Your task to perform on an android device: Open location settings Image 0: 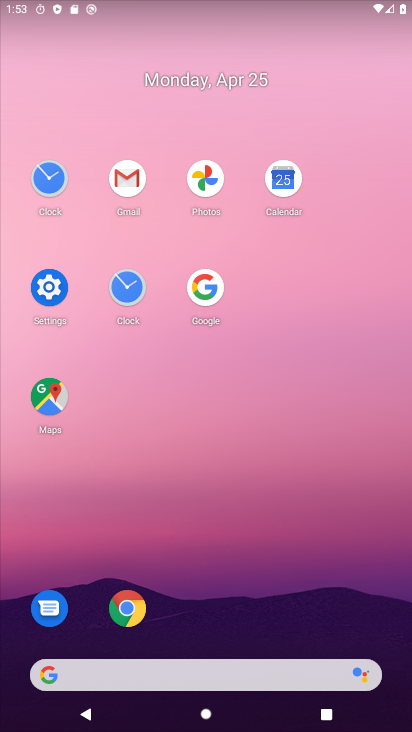
Step 0: click (50, 289)
Your task to perform on an android device: Open location settings Image 1: 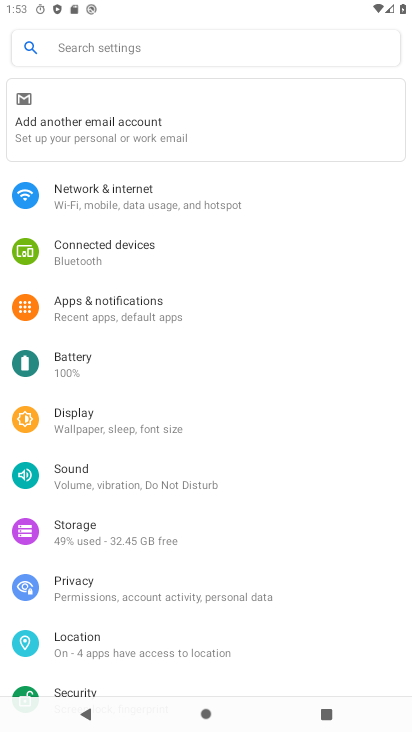
Step 1: click (125, 653)
Your task to perform on an android device: Open location settings Image 2: 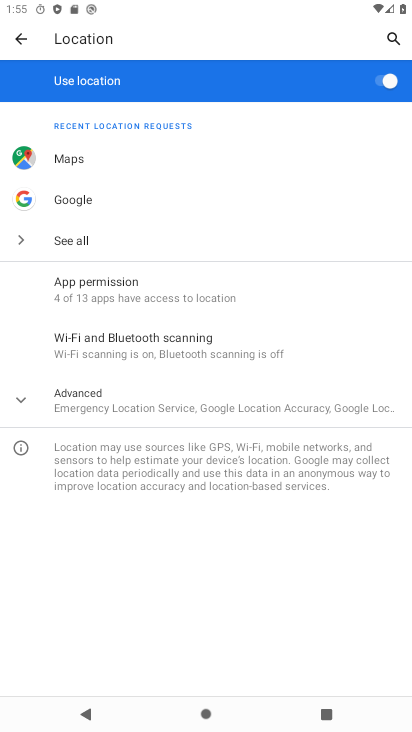
Step 2: task complete